Your task to perform on an android device: toggle priority inbox in the gmail app Image 0: 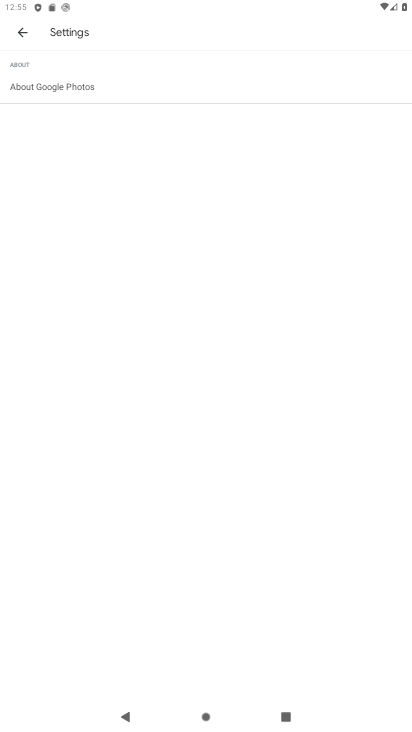
Step 0: press home button
Your task to perform on an android device: toggle priority inbox in the gmail app Image 1: 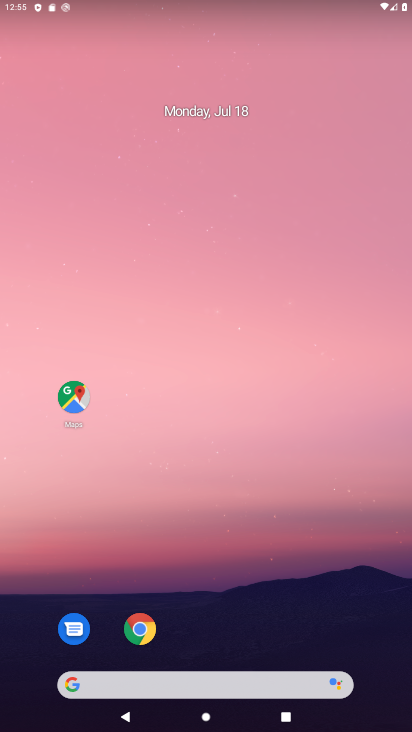
Step 1: drag from (147, 650) to (82, 5)
Your task to perform on an android device: toggle priority inbox in the gmail app Image 2: 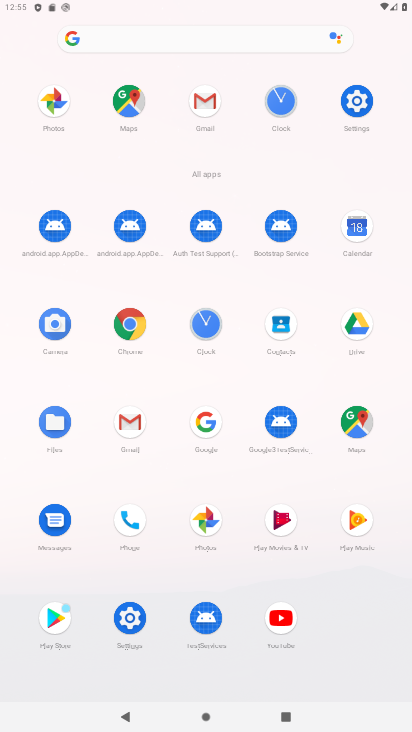
Step 2: click (197, 99)
Your task to perform on an android device: toggle priority inbox in the gmail app Image 3: 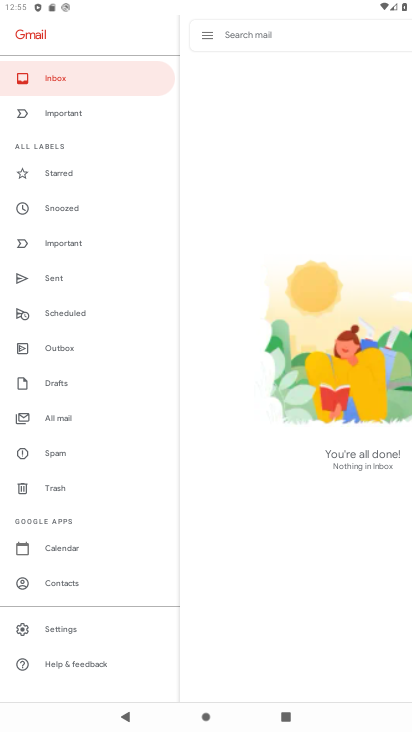
Step 3: click (27, 636)
Your task to perform on an android device: toggle priority inbox in the gmail app Image 4: 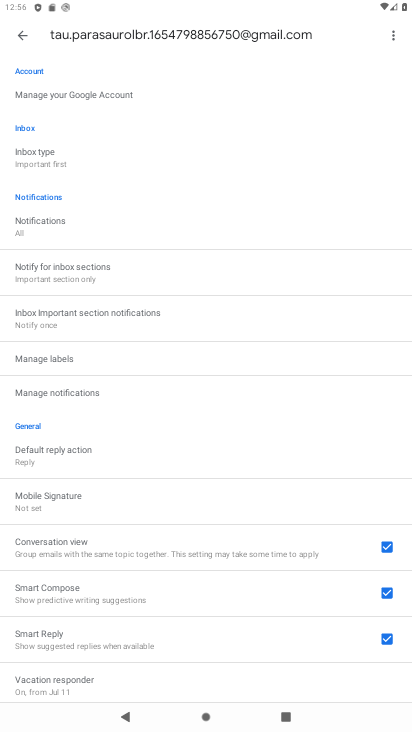
Step 4: click (113, 169)
Your task to perform on an android device: toggle priority inbox in the gmail app Image 5: 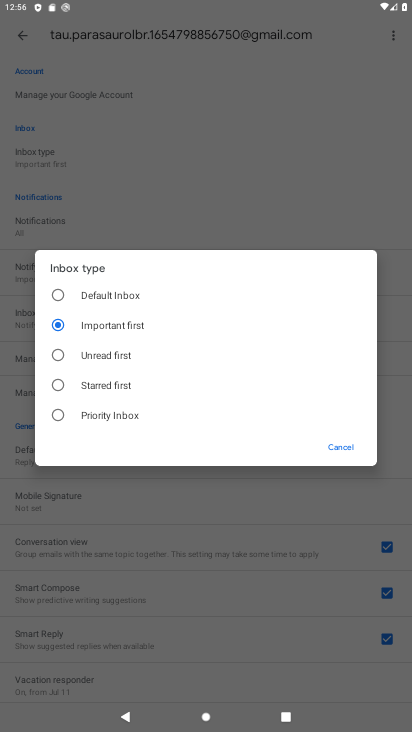
Step 5: task complete